Your task to perform on an android device: open app "Microsoft Outlook" (install if not already installed) Image 0: 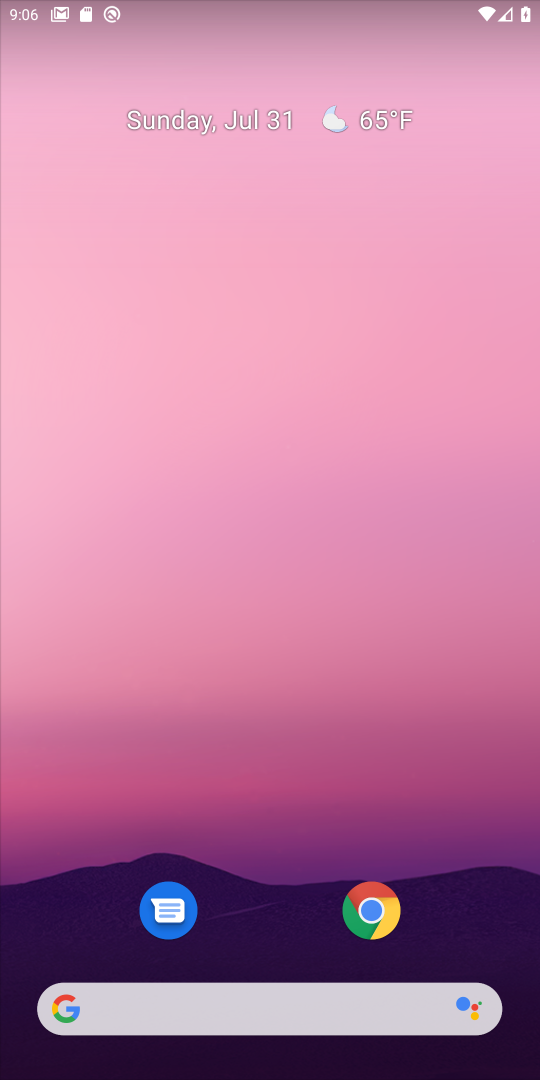
Step 0: click (177, 327)
Your task to perform on an android device: open app "Microsoft Outlook" (install if not already installed) Image 1: 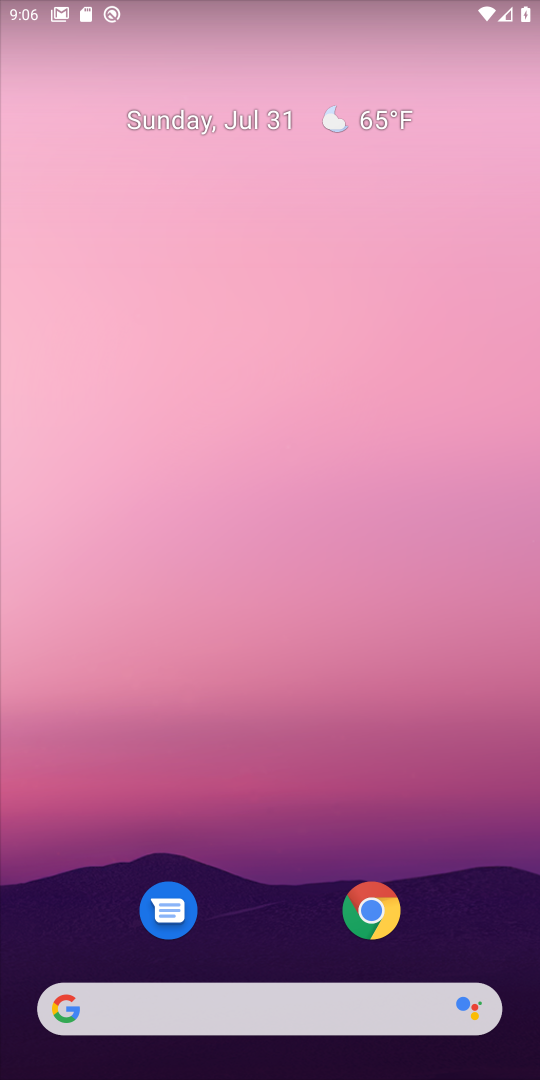
Step 1: drag from (297, 970) to (301, 144)
Your task to perform on an android device: open app "Microsoft Outlook" (install if not already installed) Image 2: 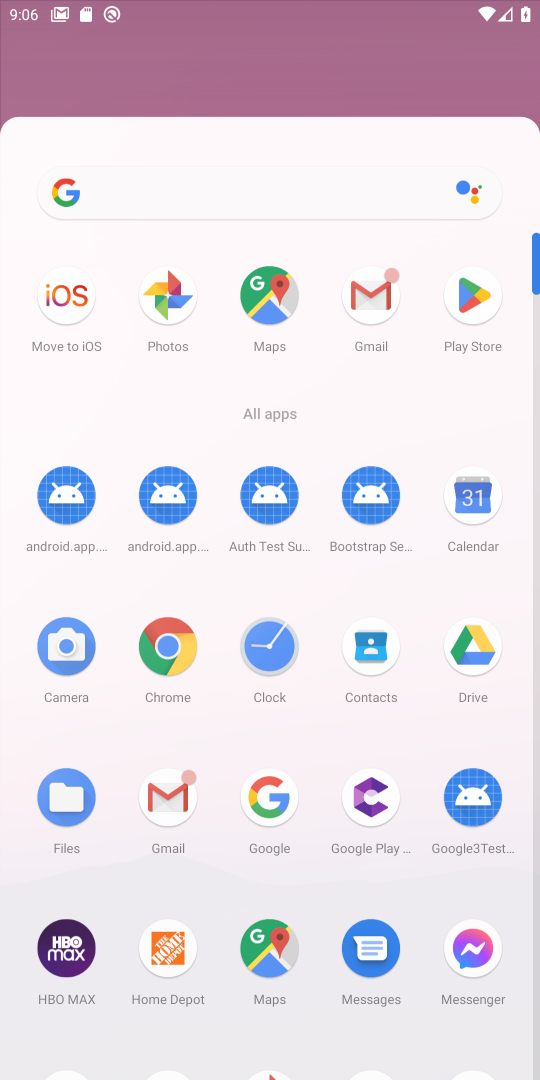
Step 2: drag from (110, 578) to (93, 93)
Your task to perform on an android device: open app "Microsoft Outlook" (install if not already installed) Image 3: 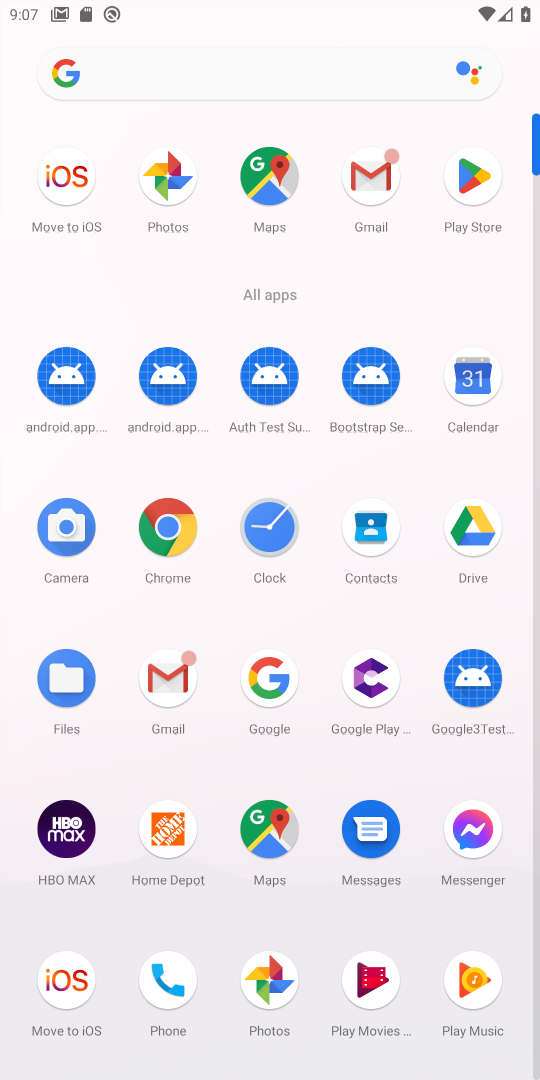
Step 3: click (473, 178)
Your task to perform on an android device: open app "Microsoft Outlook" (install if not already installed) Image 4: 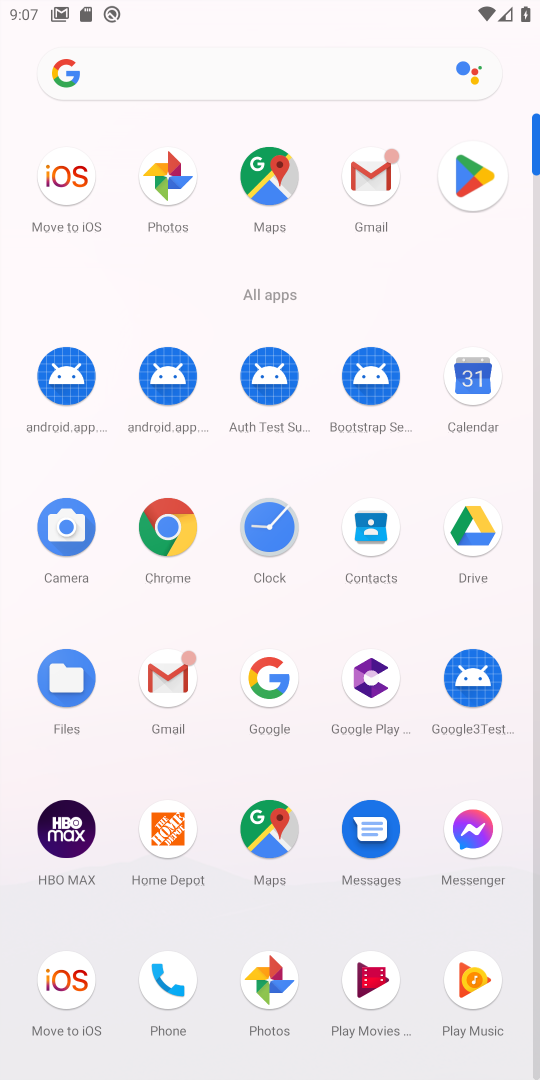
Step 4: click (470, 176)
Your task to perform on an android device: open app "Microsoft Outlook" (install if not already installed) Image 5: 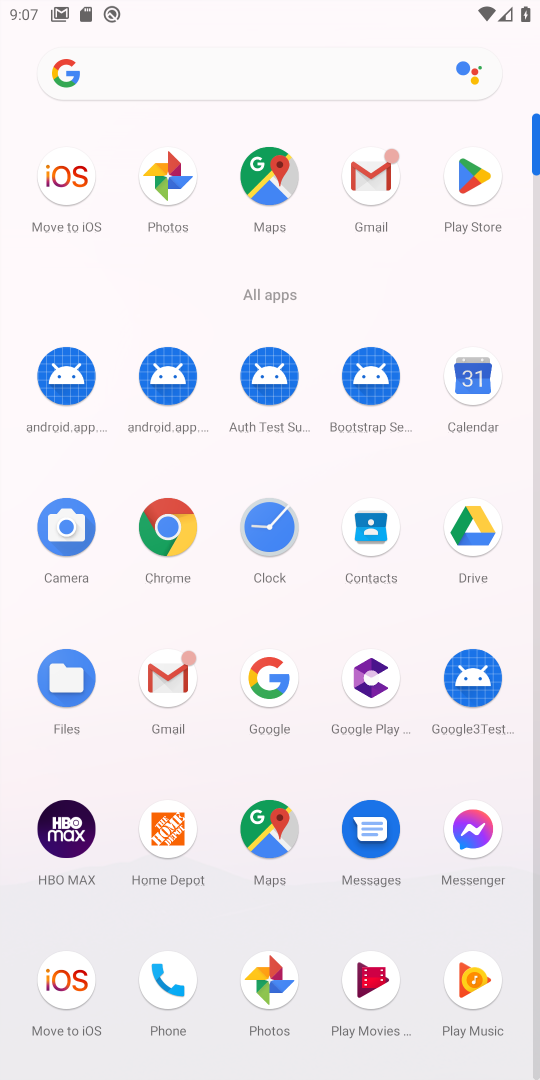
Step 5: click (464, 182)
Your task to perform on an android device: open app "Microsoft Outlook" (install if not already installed) Image 6: 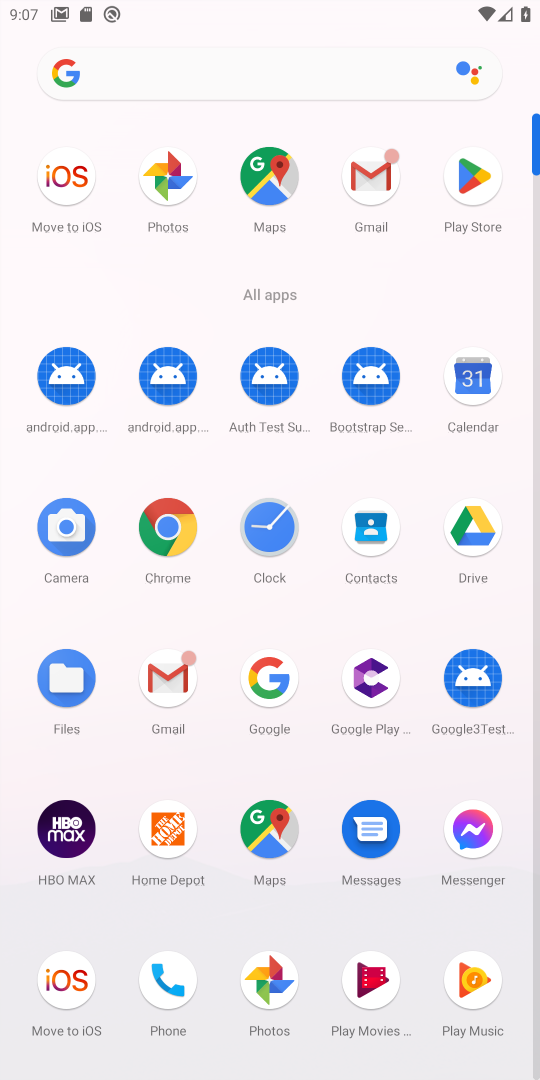
Step 6: click (467, 185)
Your task to perform on an android device: open app "Microsoft Outlook" (install if not already installed) Image 7: 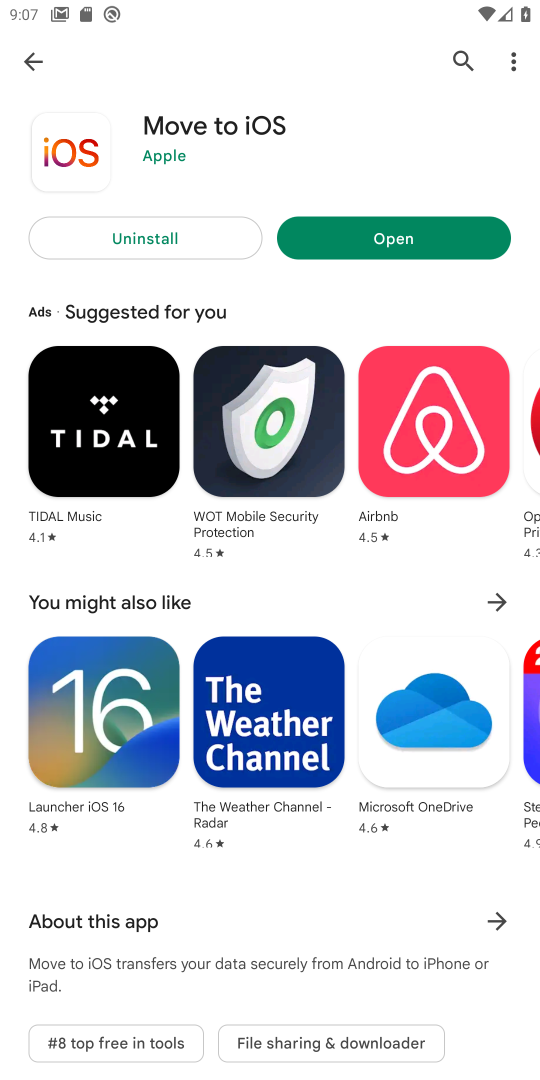
Step 7: click (483, 179)
Your task to perform on an android device: open app "Microsoft Outlook" (install if not already installed) Image 8: 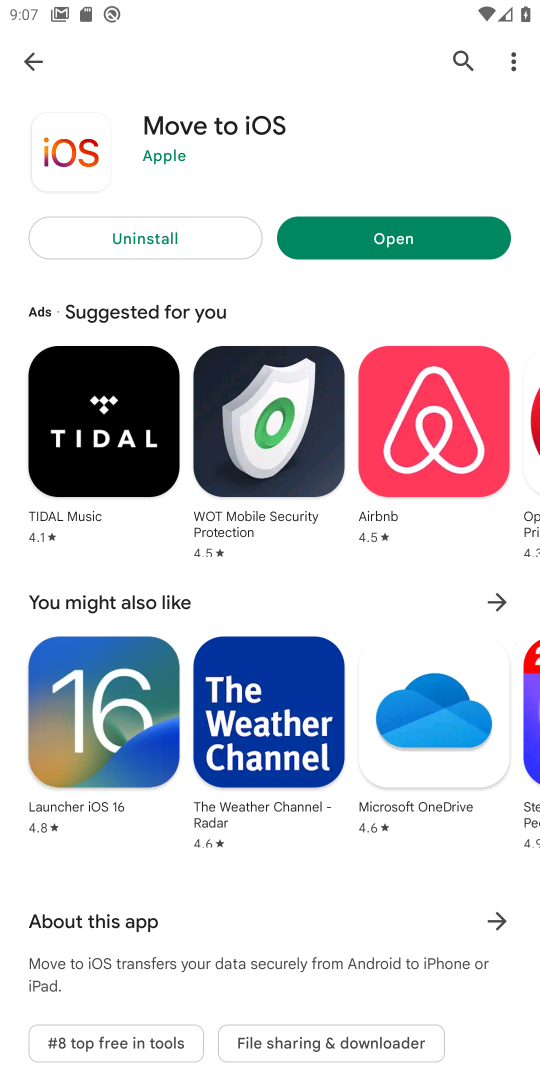
Step 8: click (42, 59)
Your task to perform on an android device: open app "Microsoft Outlook" (install if not already installed) Image 9: 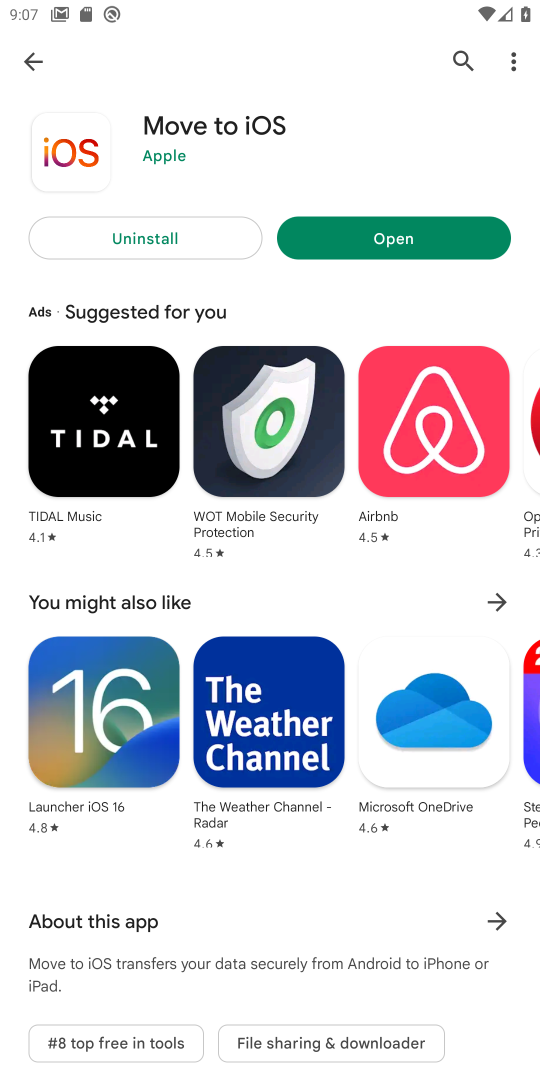
Step 9: click (36, 67)
Your task to perform on an android device: open app "Microsoft Outlook" (install if not already installed) Image 10: 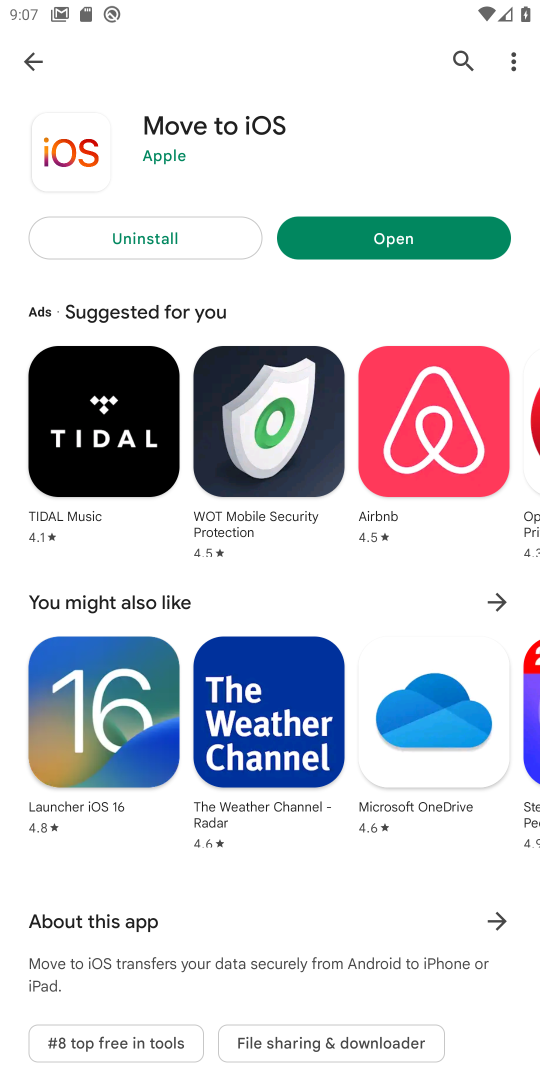
Step 10: click (39, 44)
Your task to perform on an android device: open app "Microsoft Outlook" (install if not already installed) Image 11: 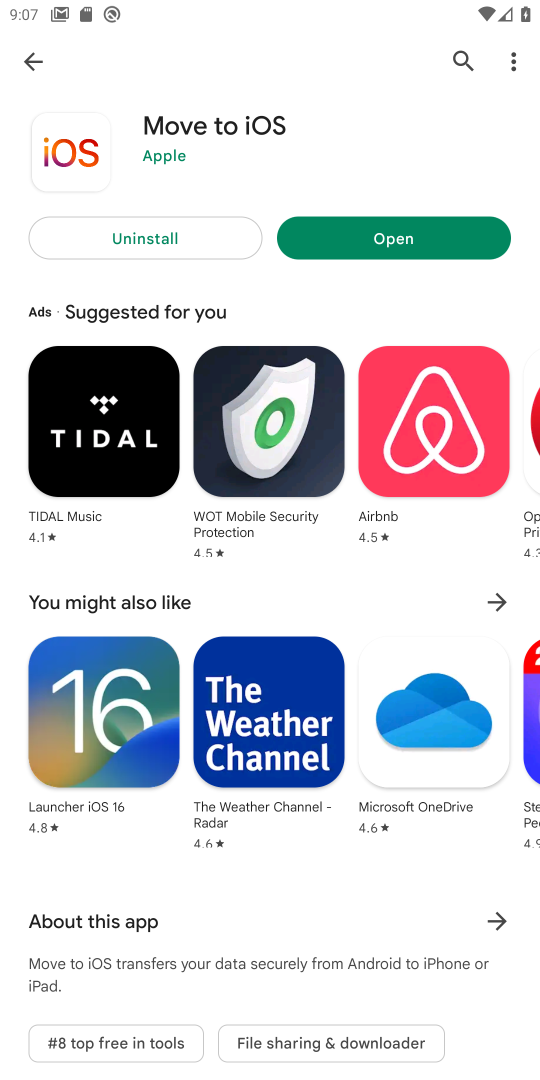
Step 11: click (42, 62)
Your task to perform on an android device: open app "Microsoft Outlook" (install if not already installed) Image 12: 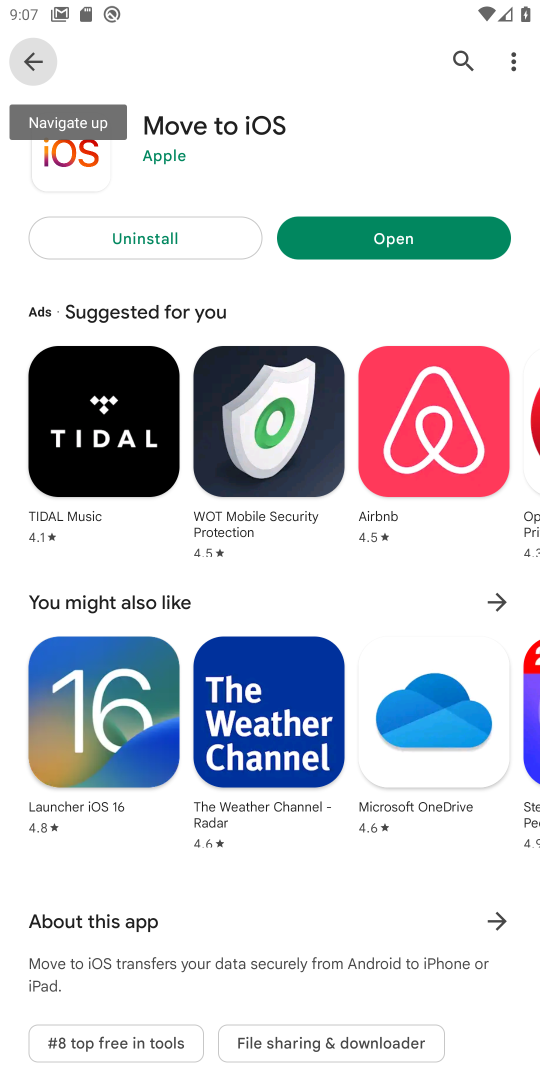
Step 12: click (7, 72)
Your task to perform on an android device: open app "Microsoft Outlook" (install if not already installed) Image 13: 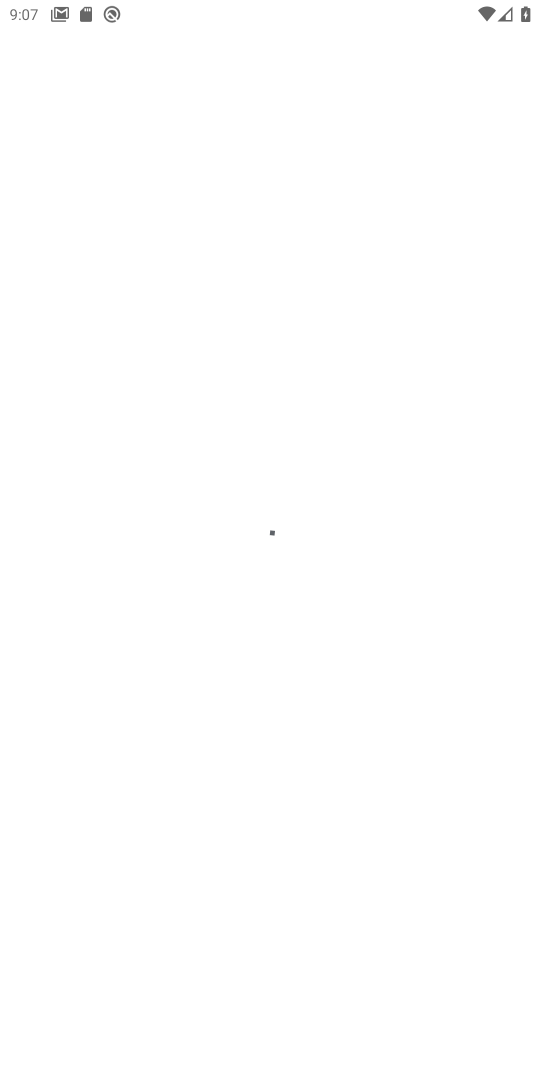
Step 13: click (47, 76)
Your task to perform on an android device: open app "Microsoft Outlook" (install if not already installed) Image 14: 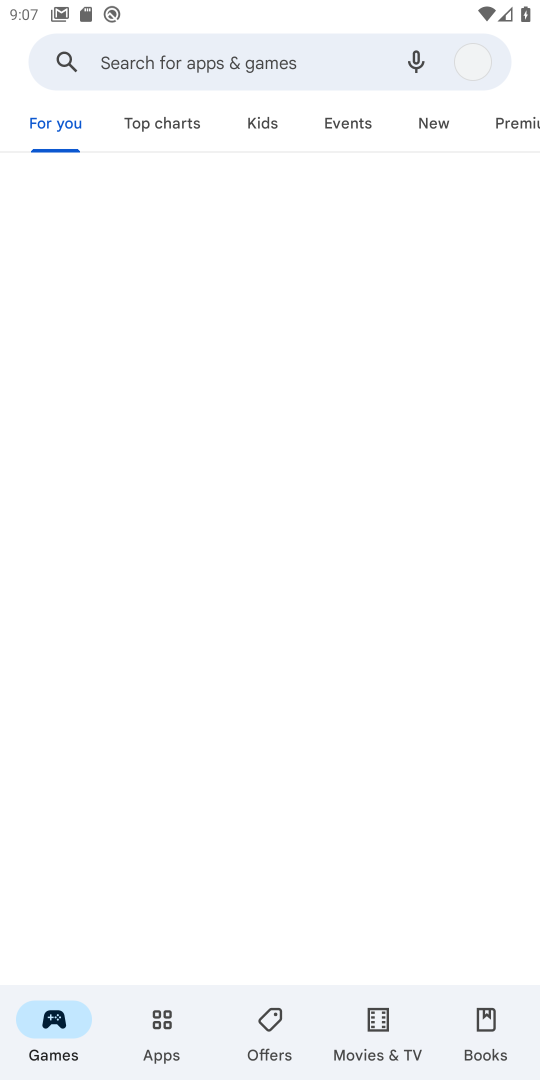
Step 14: click (41, 74)
Your task to perform on an android device: open app "Microsoft Outlook" (install if not already installed) Image 15: 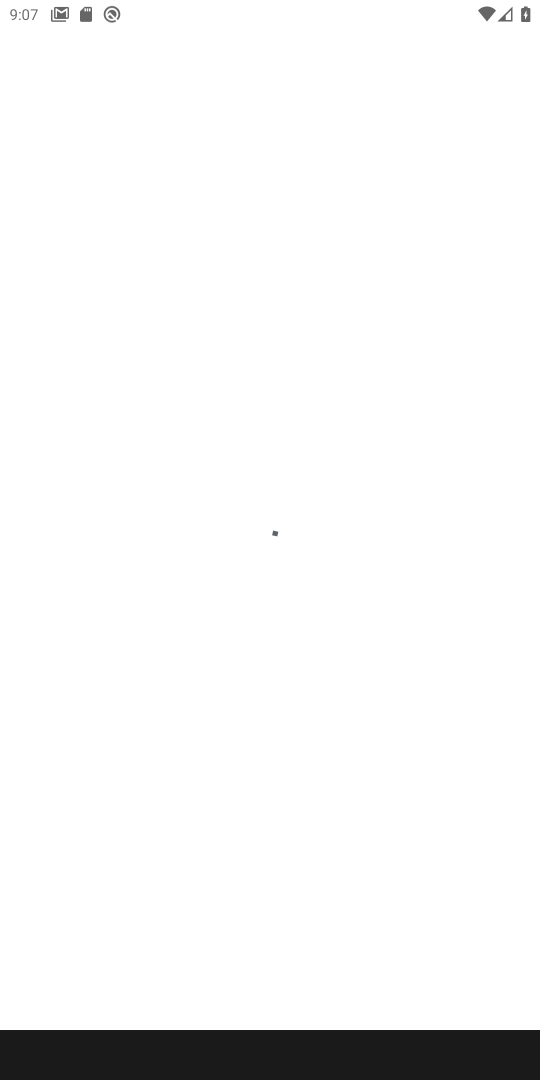
Step 15: click (115, 55)
Your task to perform on an android device: open app "Microsoft Outlook" (install if not already installed) Image 16: 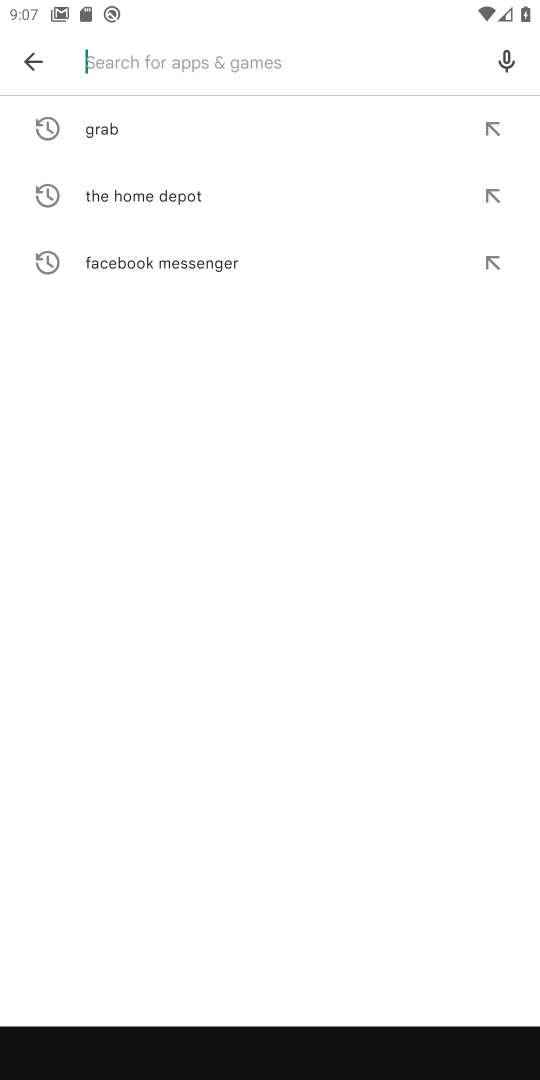
Step 16: click (111, 57)
Your task to perform on an android device: open app "Microsoft Outlook" (install if not already installed) Image 17: 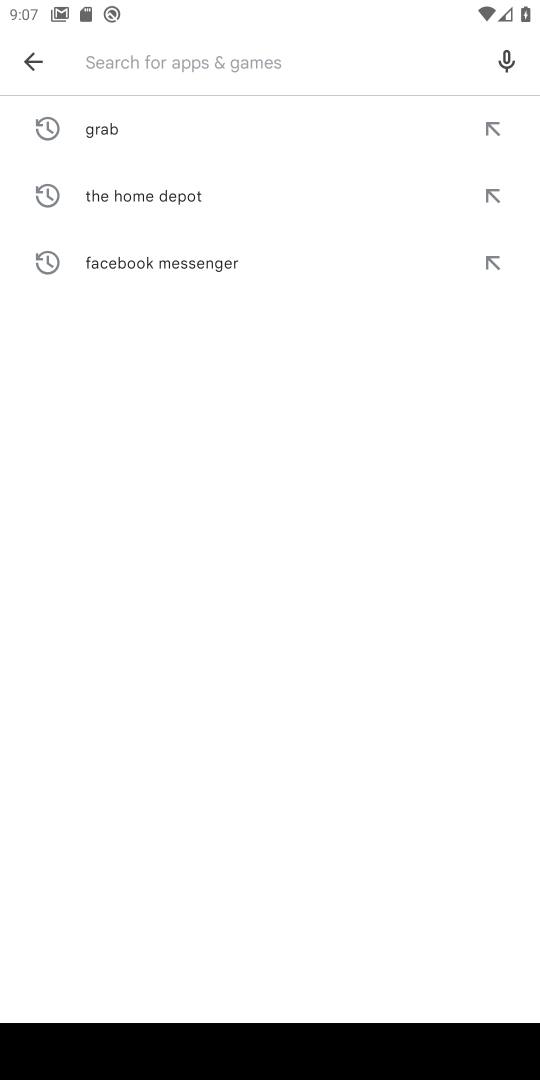
Step 17: type "m icrosoft outlook"
Your task to perform on an android device: open app "Microsoft Outlook" (install if not already installed) Image 18: 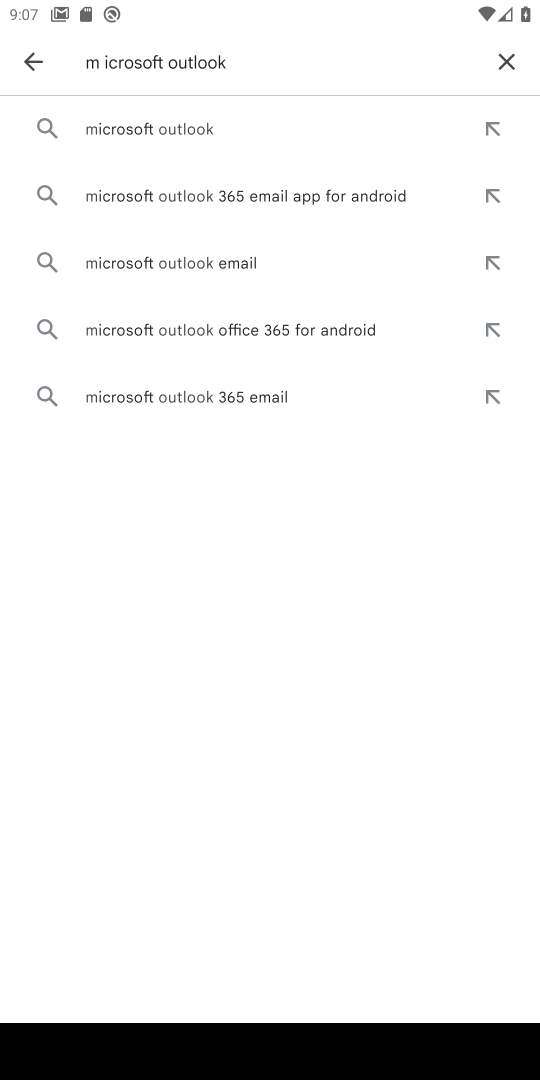
Step 18: click (205, 135)
Your task to perform on an android device: open app "Microsoft Outlook" (install if not already installed) Image 19: 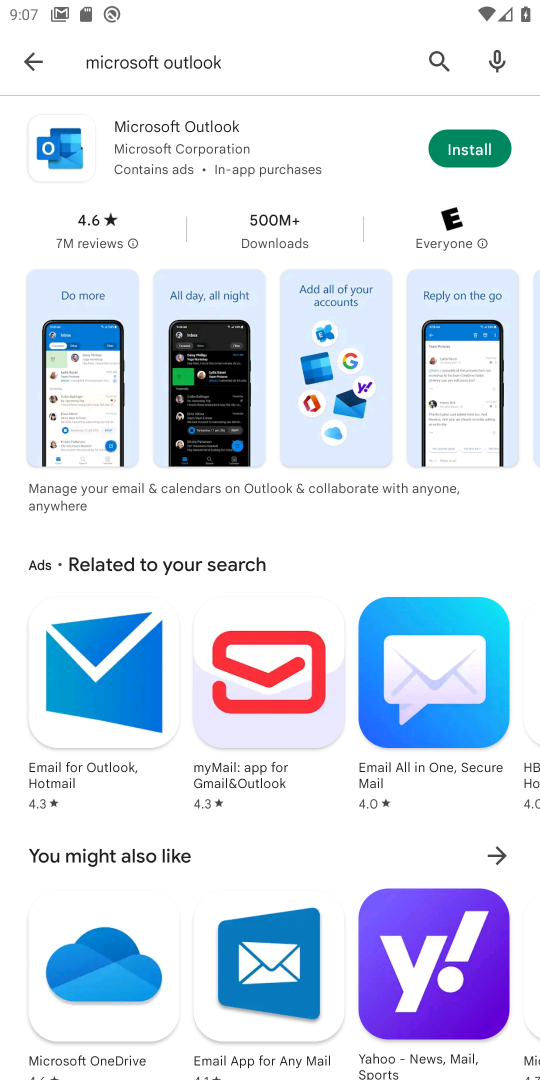
Step 19: click (457, 141)
Your task to perform on an android device: open app "Microsoft Outlook" (install if not already installed) Image 20: 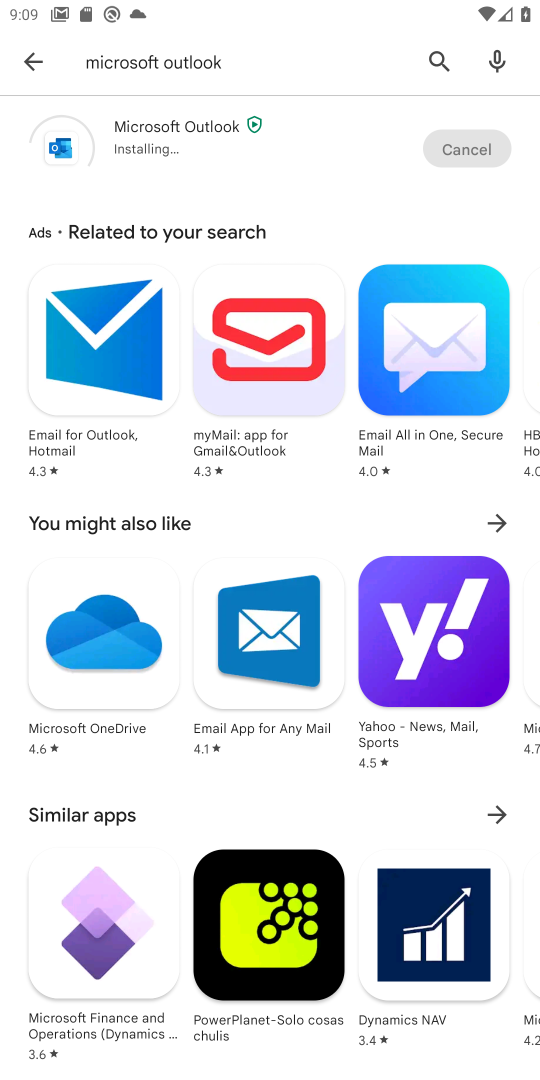
Step 20: click (119, 350)
Your task to perform on an android device: open app "Microsoft Outlook" (install if not already installed) Image 21: 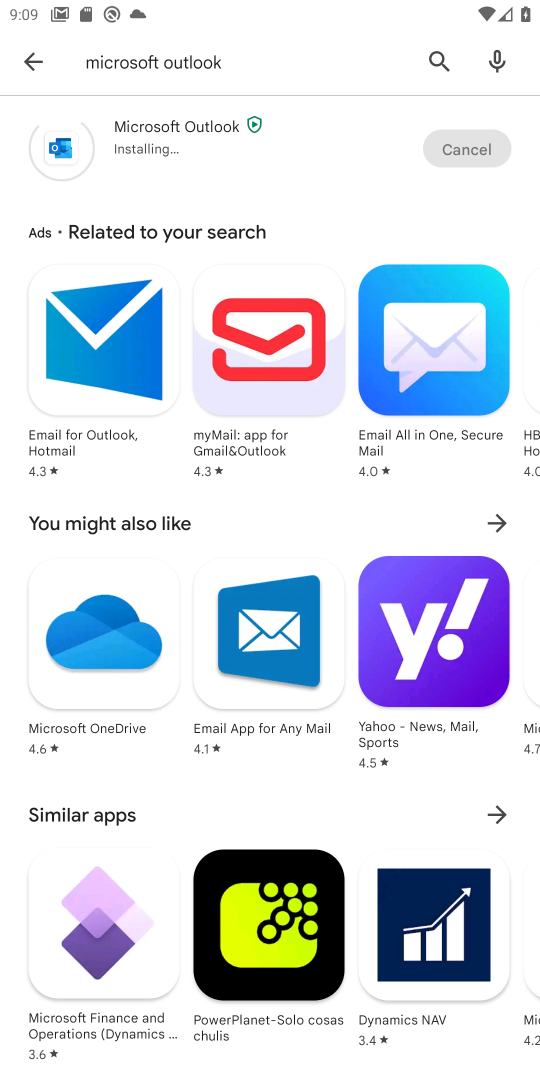
Step 21: click (119, 350)
Your task to perform on an android device: open app "Microsoft Outlook" (install if not already installed) Image 22: 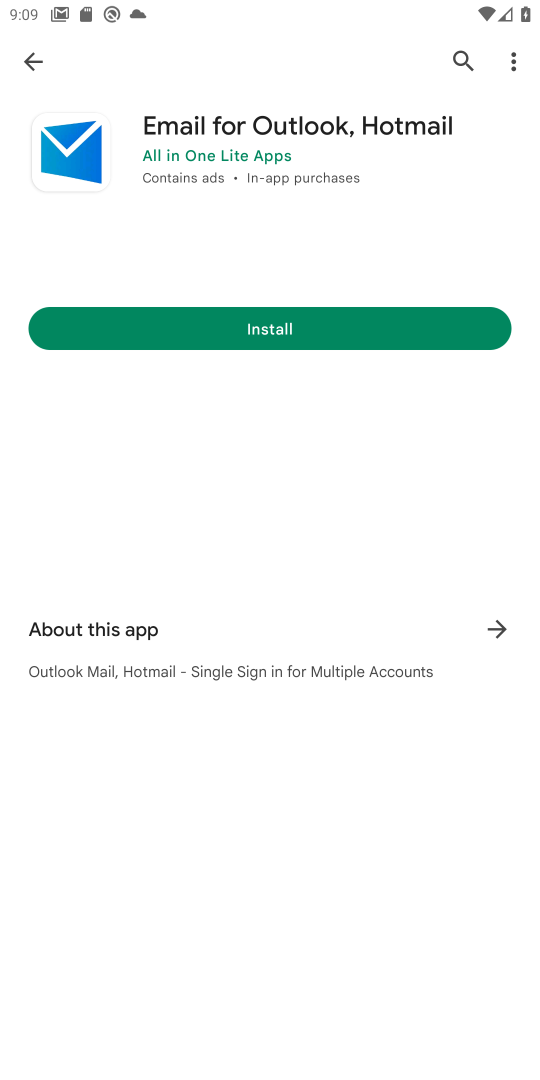
Step 22: click (119, 350)
Your task to perform on an android device: open app "Microsoft Outlook" (install if not already installed) Image 23: 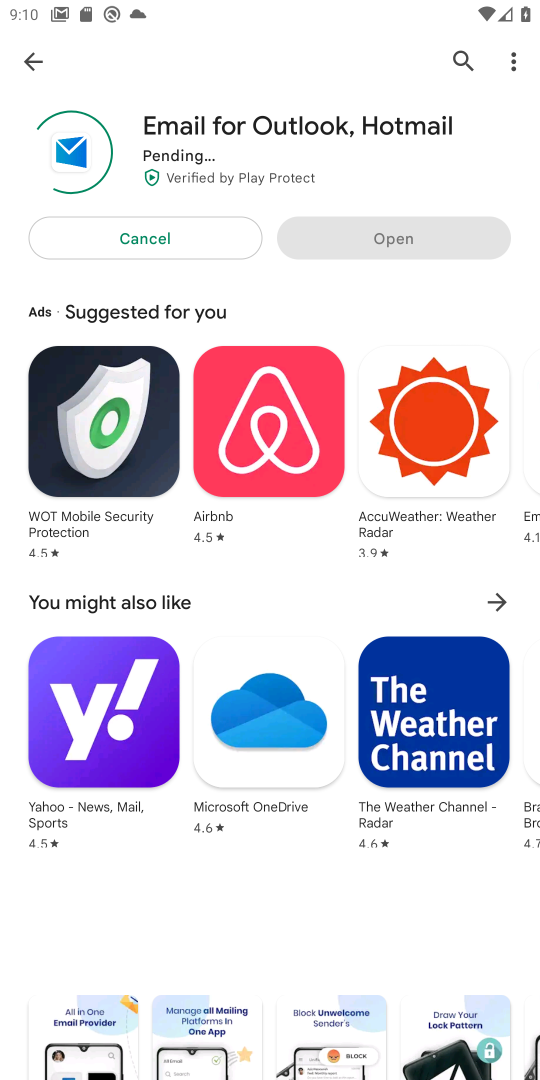
Step 23: click (20, 50)
Your task to perform on an android device: open app "Microsoft Outlook" (install if not already installed) Image 24: 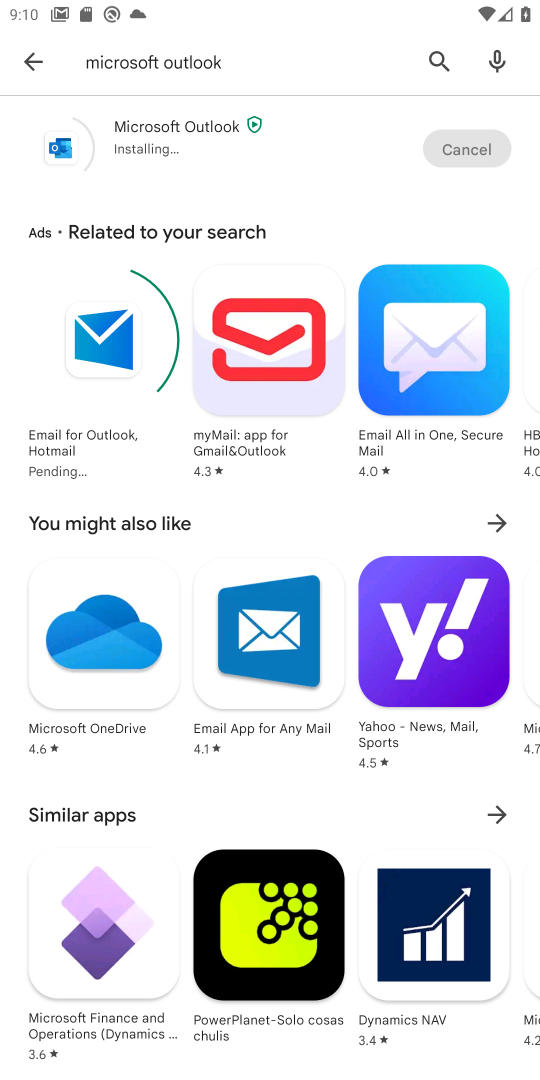
Step 24: task complete